Your task to perform on an android device: Find coffee shops on Maps Image 0: 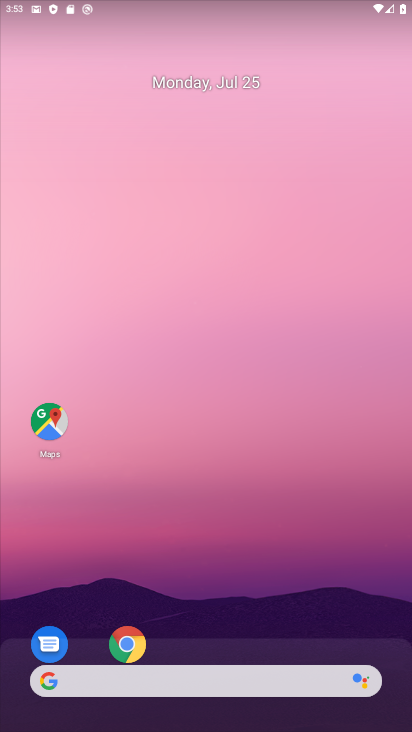
Step 0: press home button
Your task to perform on an android device: Find coffee shops on Maps Image 1: 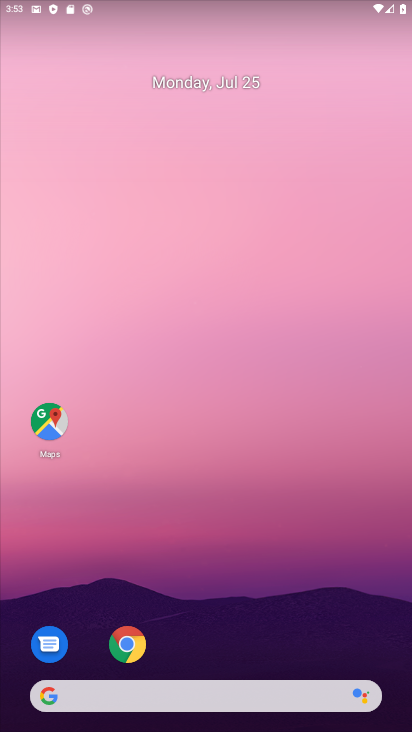
Step 1: press home button
Your task to perform on an android device: Find coffee shops on Maps Image 2: 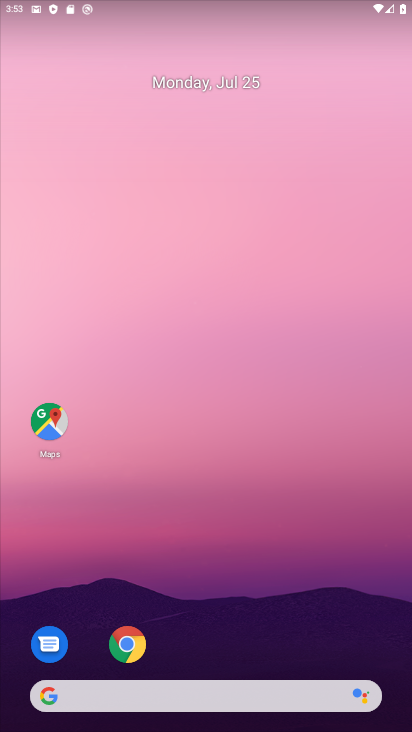
Step 2: click (51, 422)
Your task to perform on an android device: Find coffee shops on Maps Image 3: 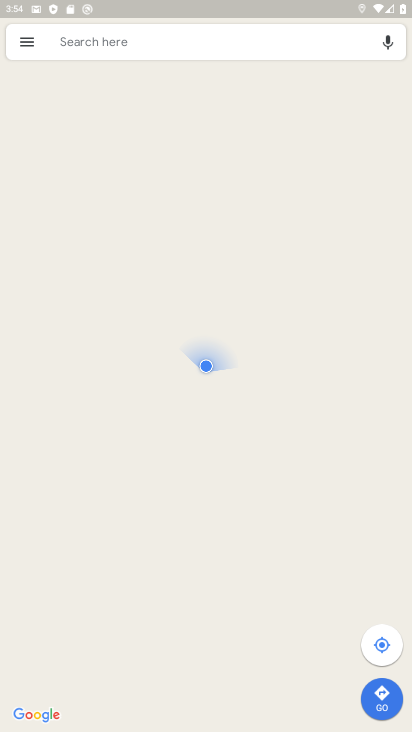
Step 3: click (112, 45)
Your task to perform on an android device: Find coffee shops on Maps Image 4: 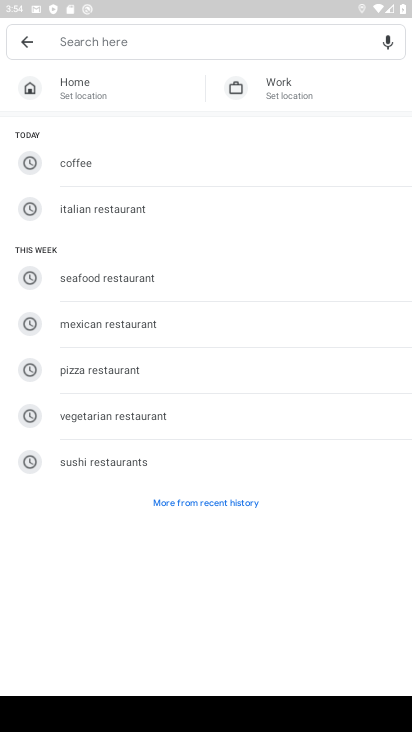
Step 4: type " coffee shops"
Your task to perform on an android device: Find coffee shops on Maps Image 5: 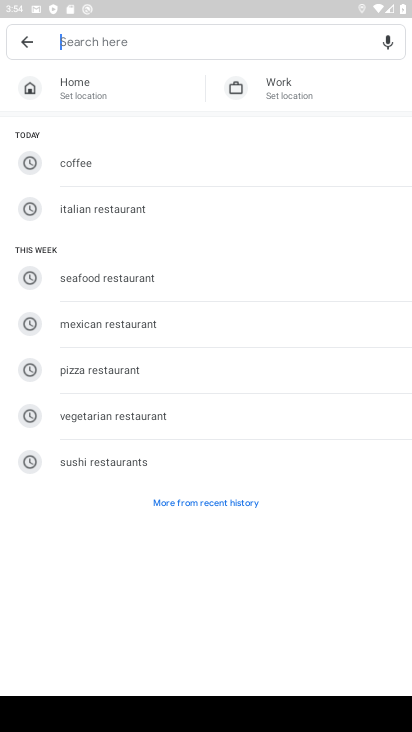
Step 5: click (104, 36)
Your task to perform on an android device: Find coffee shops on Maps Image 6: 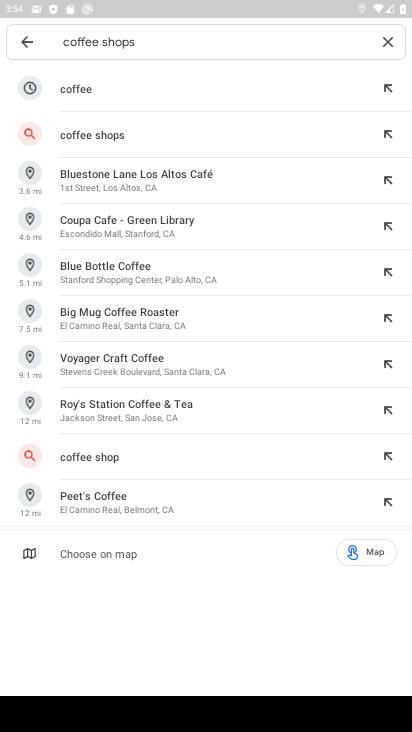
Step 6: press enter
Your task to perform on an android device: Find coffee shops on Maps Image 7: 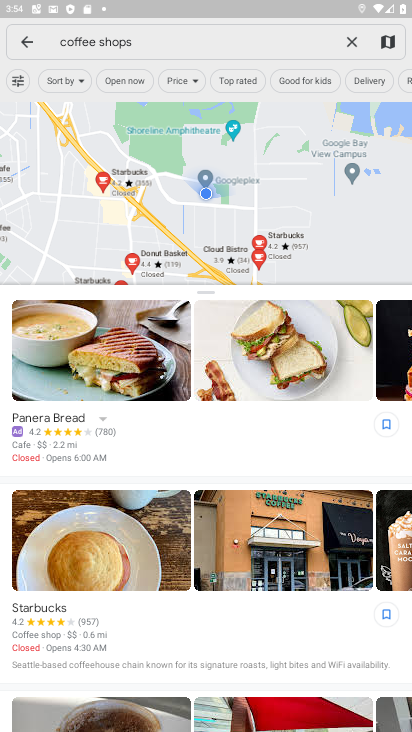
Step 7: task complete